Your task to perform on an android device: change the clock display to show seconds Image 0: 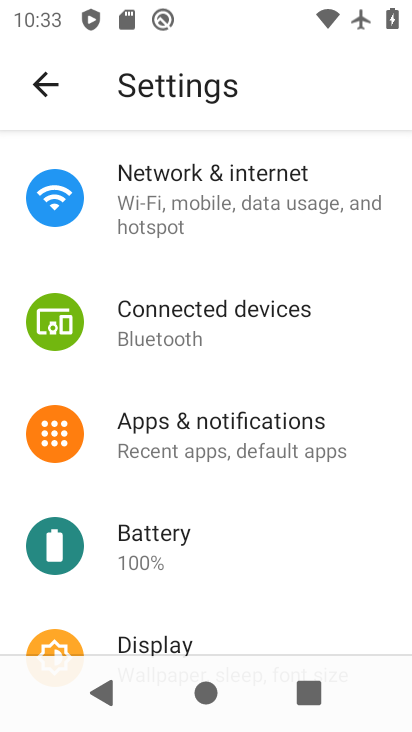
Step 0: press home button
Your task to perform on an android device: change the clock display to show seconds Image 1: 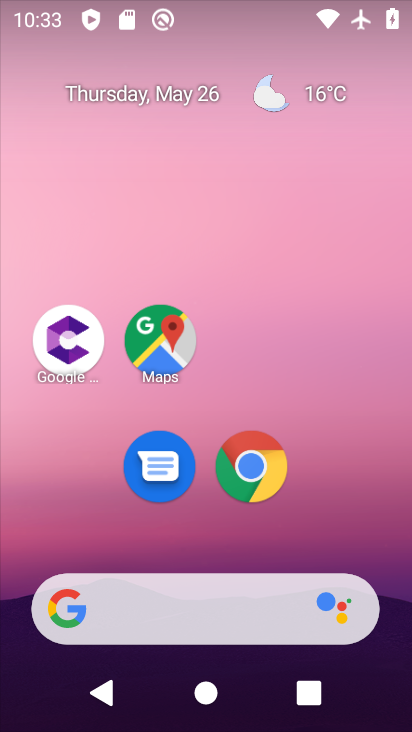
Step 1: drag from (350, 487) to (207, 81)
Your task to perform on an android device: change the clock display to show seconds Image 2: 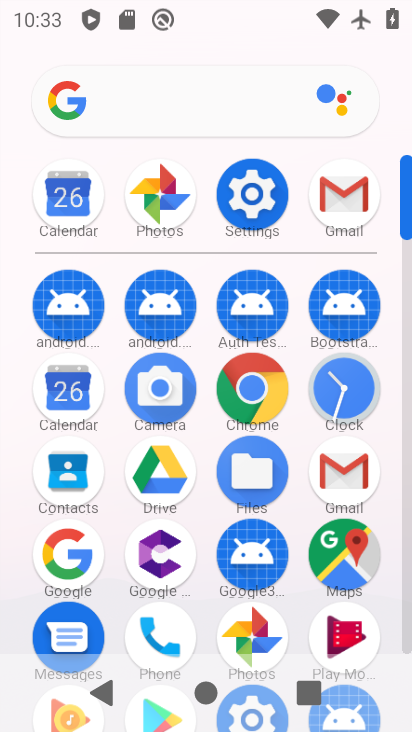
Step 2: click (355, 394)
Your task to perform on an android device: change the clock display to show seconds Image 3: 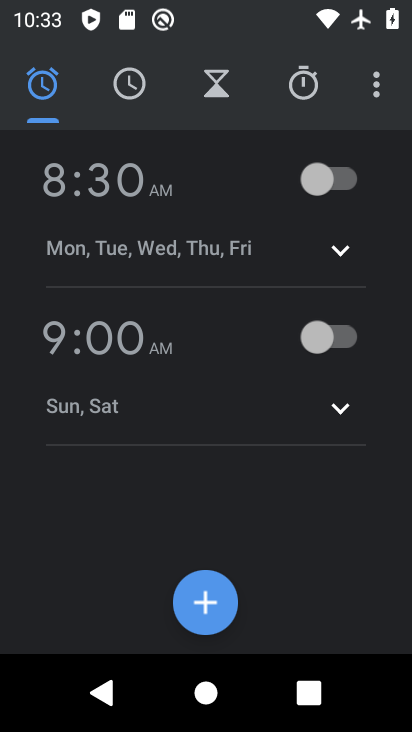
Step 3: click (376, 85)
Your task to perform on an android device: change the clock display to show seconds Image 4: 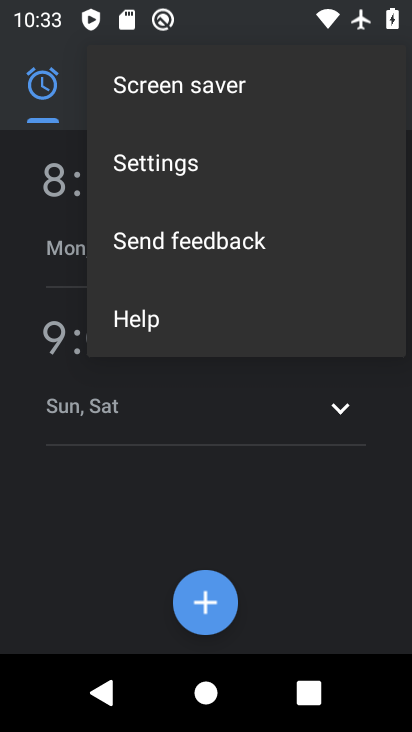
Step 4: click (195, 157)
Your task to perform on an android device: change the clock display to show seconds Image 5: 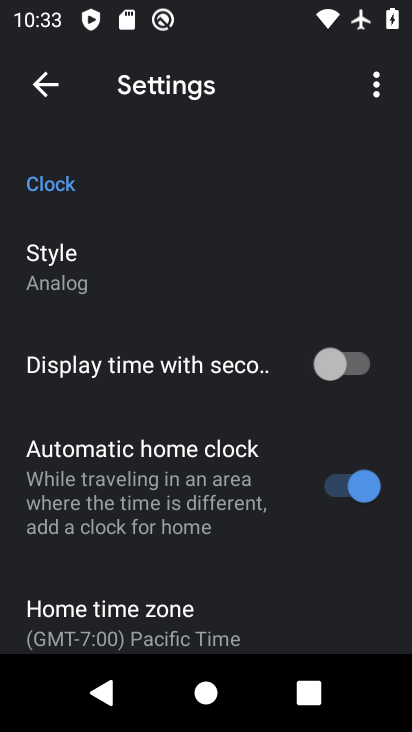
Step 5: click (337, 366)
Your task to perform on an android device: change the clock display to show seconds Image 6: 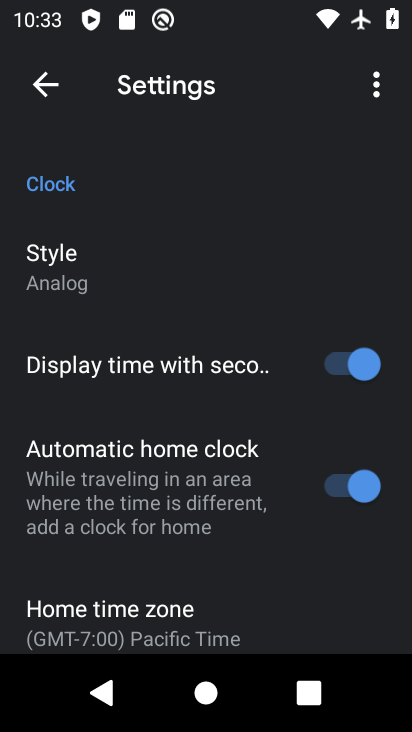
Step 6: task complete